Your task to perform on an android device: Open the phone app and click the voicemail tab. Image 0: 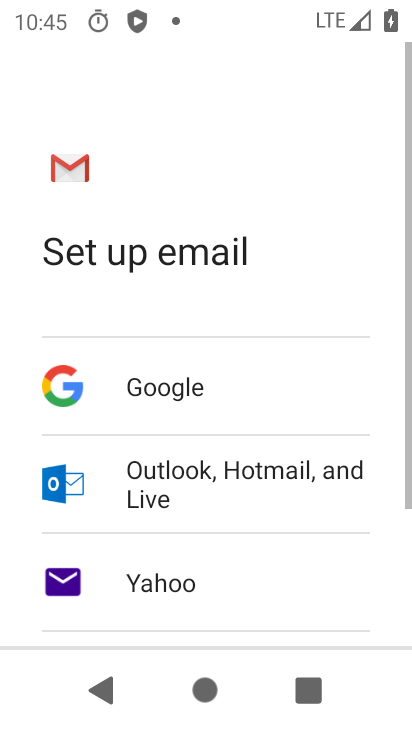
Step 0: press home button
Your task to perform on an android device: Open the phone app and click the voicemail tab. Image 1: 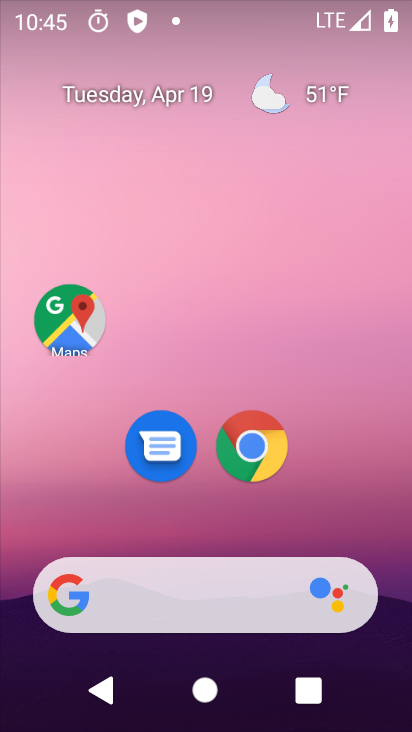
Step 1: drag from (361, 528) to (271, 44)
Your task to perform on an android device: Open the phone app and click the voicemail tab. Image 2: 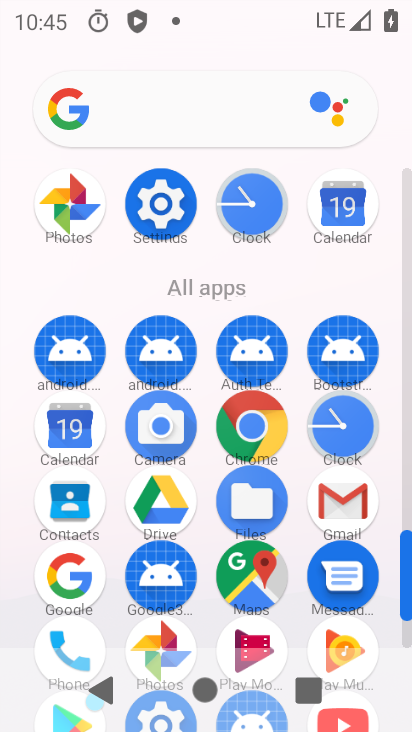
Step 2: drag from (409, 443) to (400, 327)
Your task to perform on an android device: Open the phone app and click the voicemail tab. Image 3: 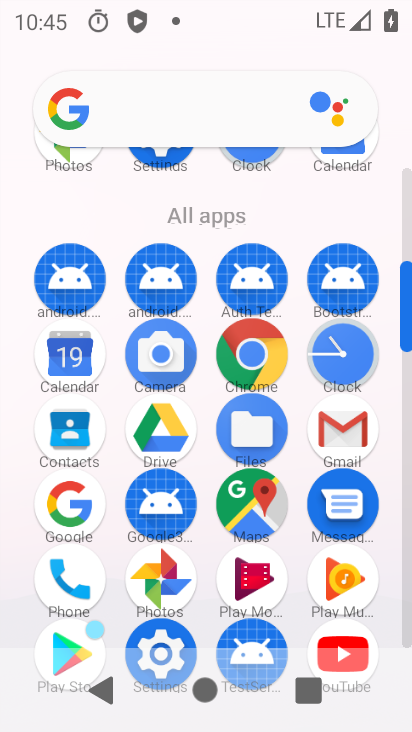
Step 3: click (59, 571)
Your task to perform on an android device: Open the phone app and click the voicemail tab. Image 4: 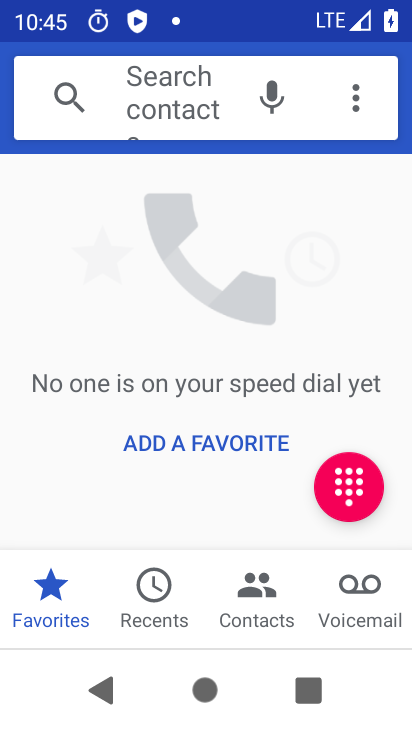
Step 4: click (373, 594)
Your task to perform on an android device: Open the phone app and click the voicemail tab. Image 5: 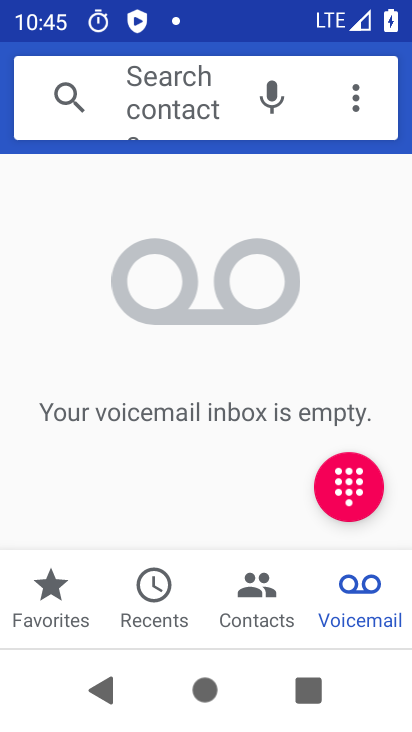
Step 5: task complete